Your task to perform on an android device: Search for flights from Helsinki to Tokyo Image 0: 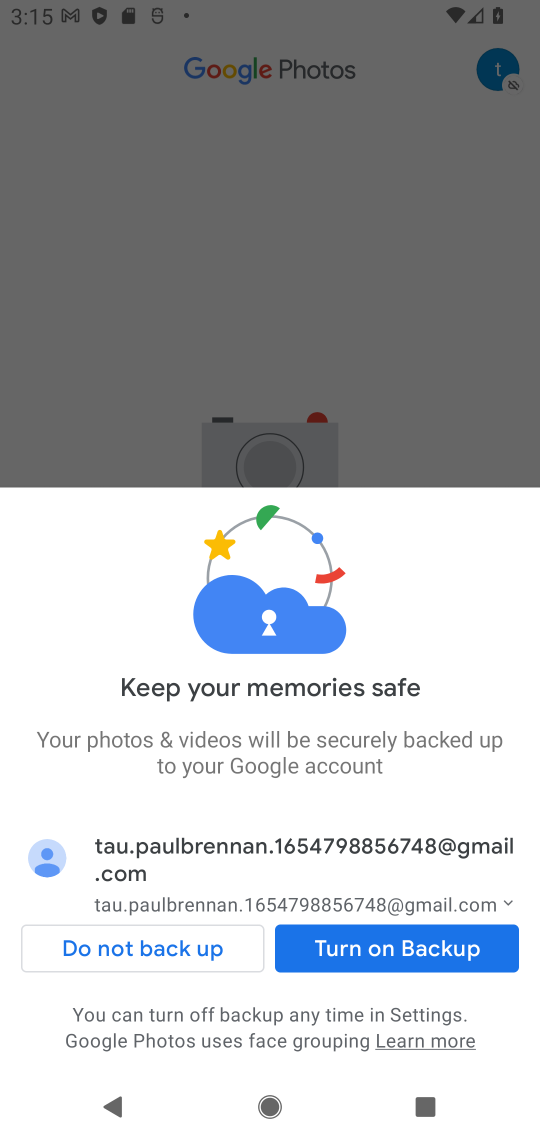
Step 0: press home button
Your task to perform on an android device: Search for flights from Helsinki to Tokyo Image 1: 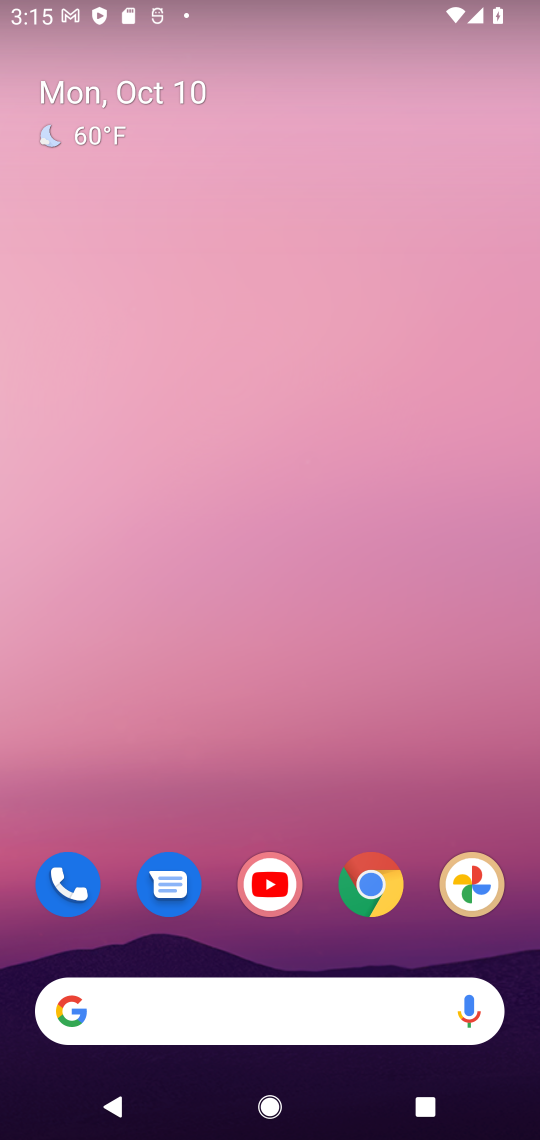
Step 1: click (371, 890)
Your task to perform on an android device: Search for flights from Helsinki to Tokyo Image 2: 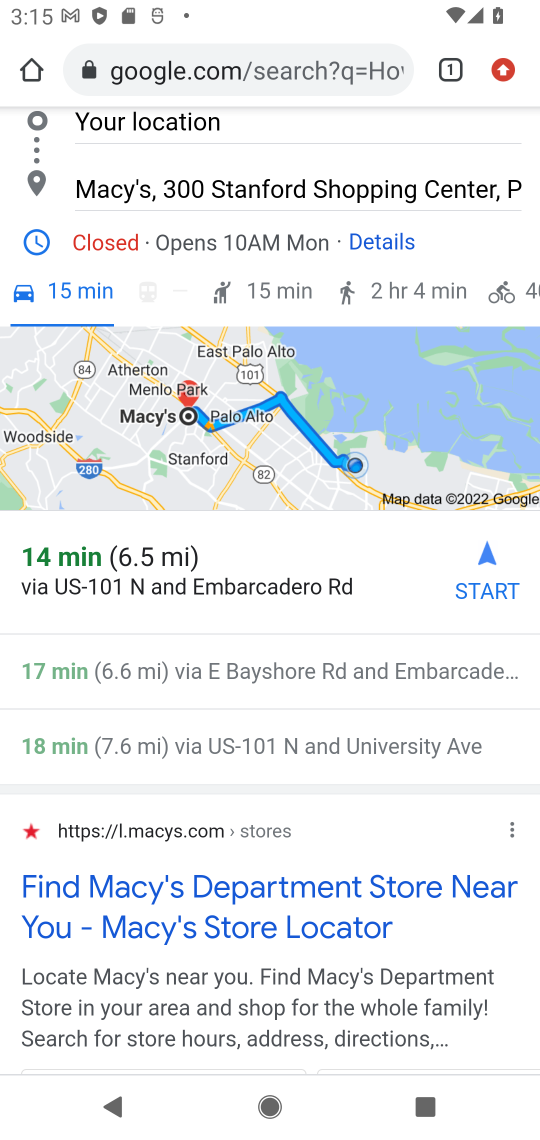
Step 2: click (230, 81)
Your task to perform on an android device: Search for flights from Helsinki to Tokyo Image 3: 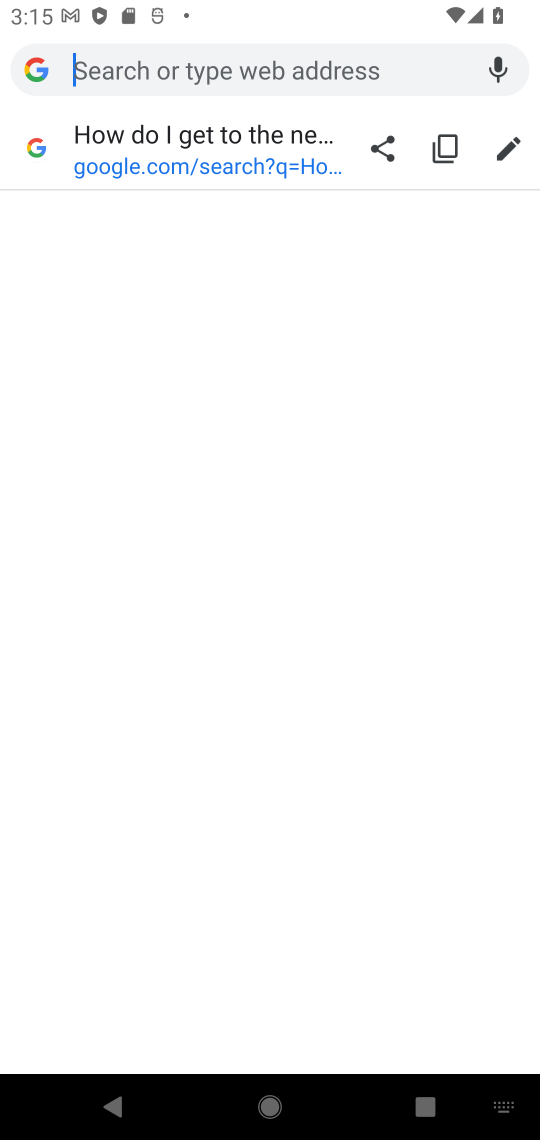
Step 3: type "flights from Helsinki to Tokyo"
Your task to perform on an android device: Search for flights from Helsinki to Tokyo Image 4: 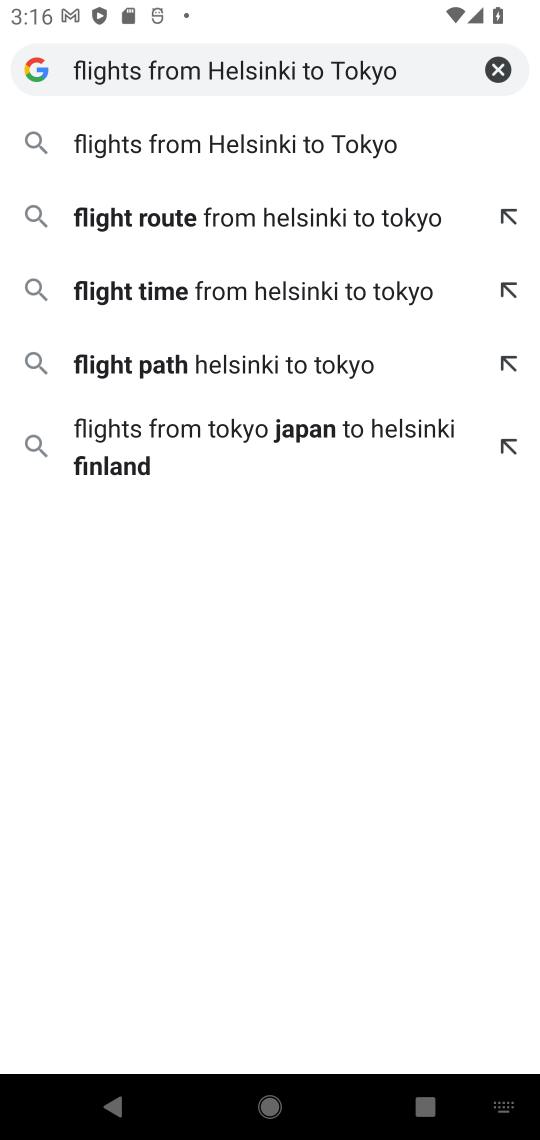
Step 4: click (193, 150)
Your task to perform on an android device: Search for flights from Helsinki to Tokyo Image 5: 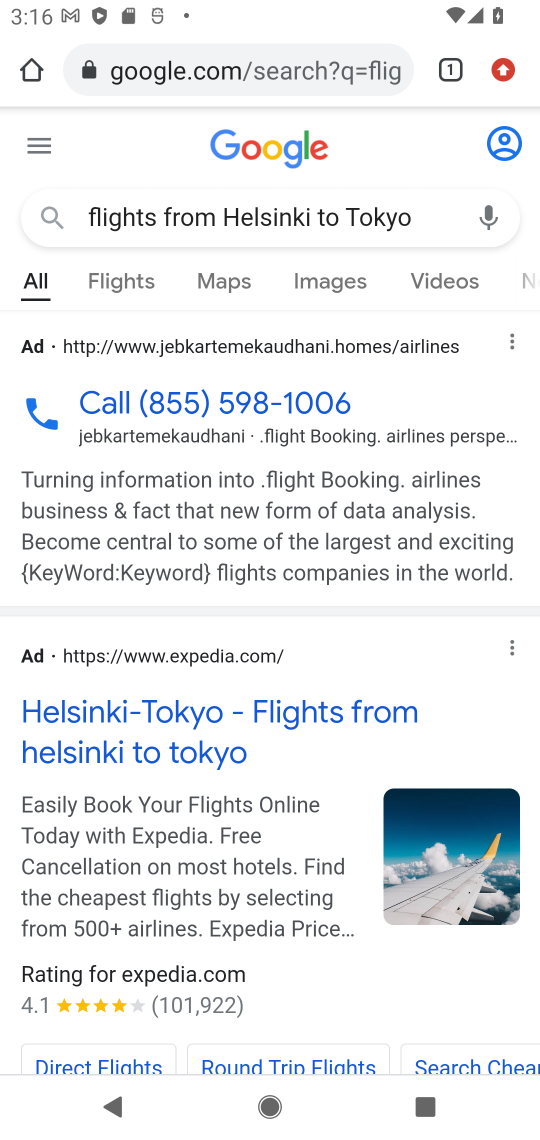
Step 5: click (103, 749)
Your task to perform on an android device: Search for flights from Helsinki to Tokyo Image 6: 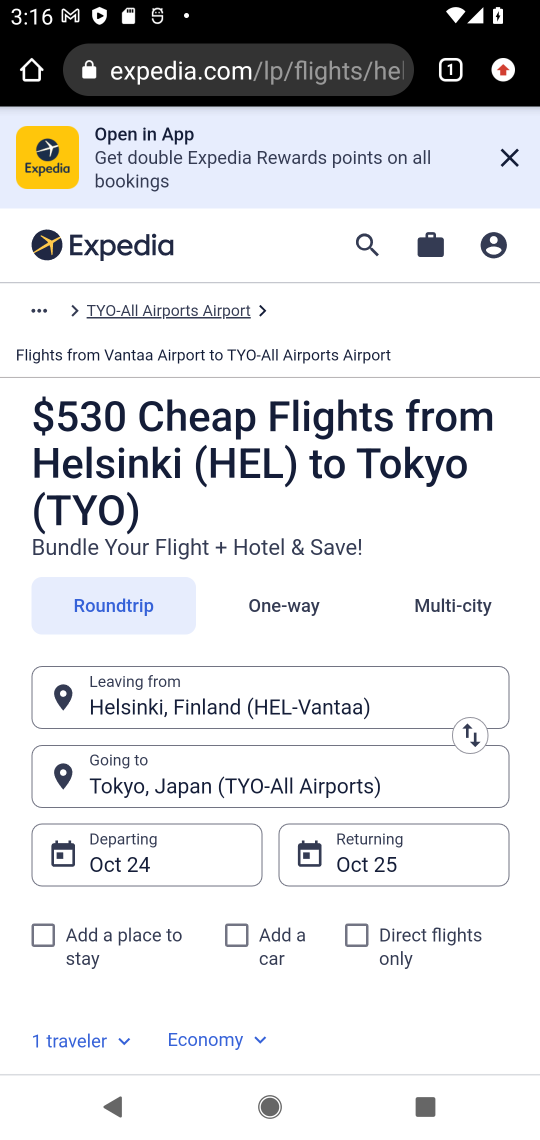
Step 6: task complete